Your task to perform on an android device: Go to privacy settings Image 0: 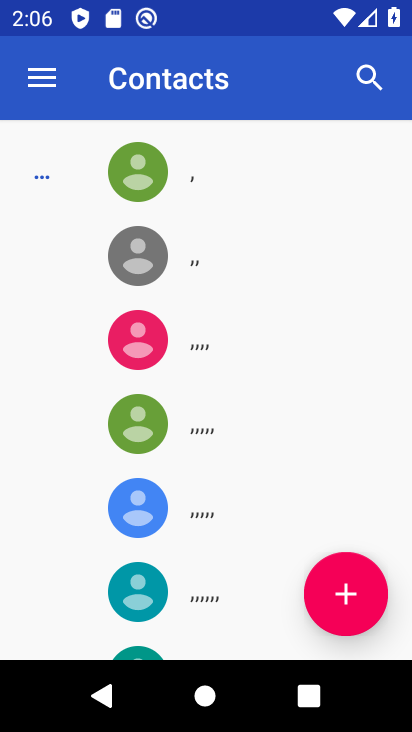
Step 0: press home button
Your task to perform on an android device: Go to privacy settings Image 1: 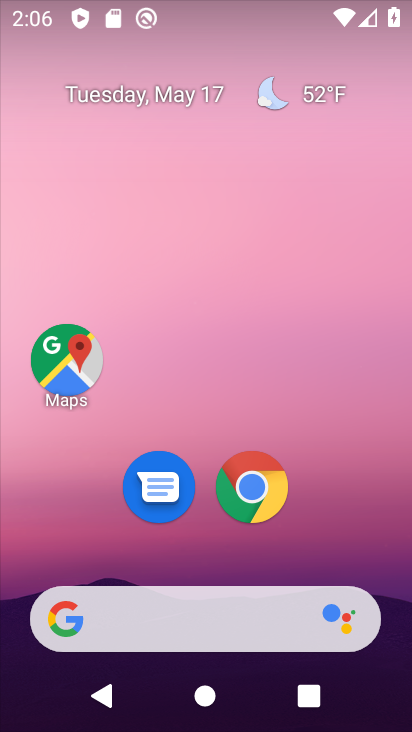
Step 1: drag from (387, 578) to (340, 202)
Your task to perform on an android device: Go to privacy settings Image 2: 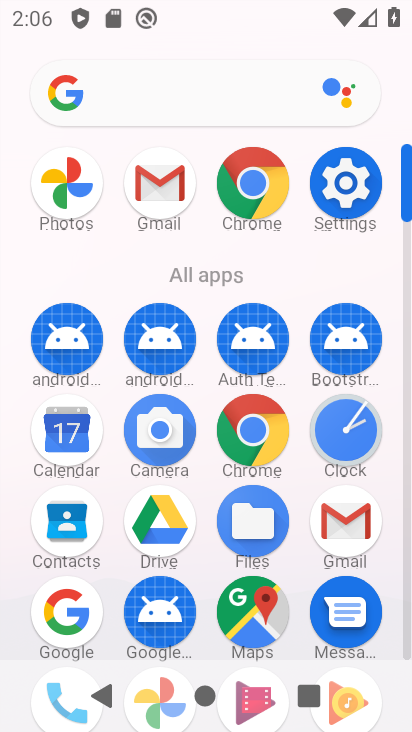
Step 2: click (337, 188)
Your task to perform on an android device: Go to privacy settings Image 3: 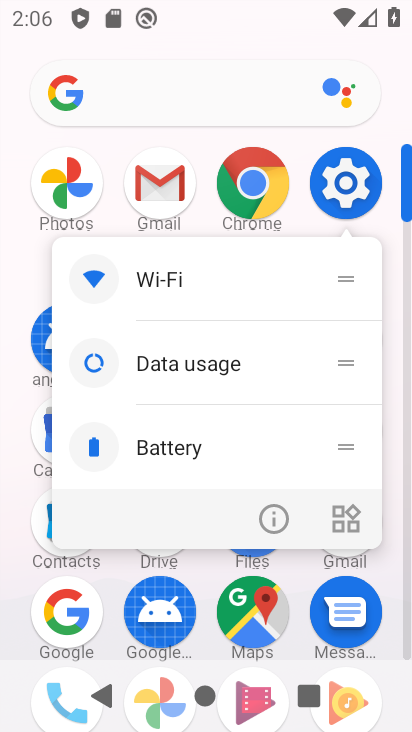
Step 3: click (250, 178)
Your task to perform on an android device: Go to privacy settings Image 4: 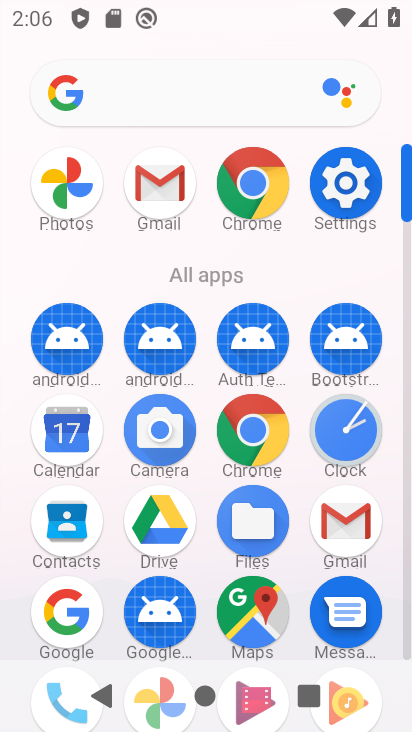
Step 4: click (249, 183)
Your task to perform on an android device: Go to privacy settings Image 5: 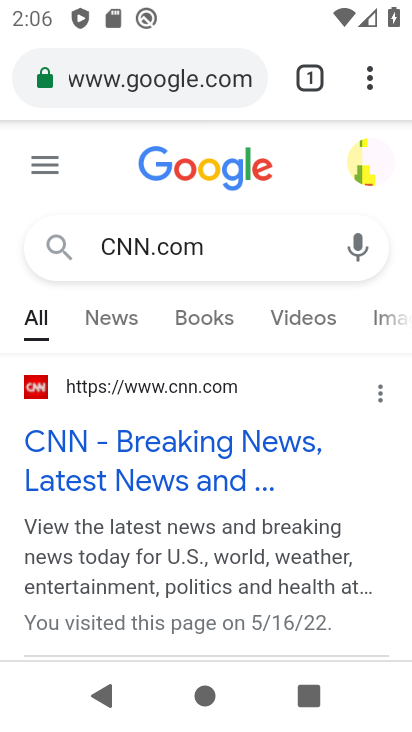
Step 5: drag from (236, 574) to (231, 366)
Your task to perform on an android device: Go to privacy settings Image 6: 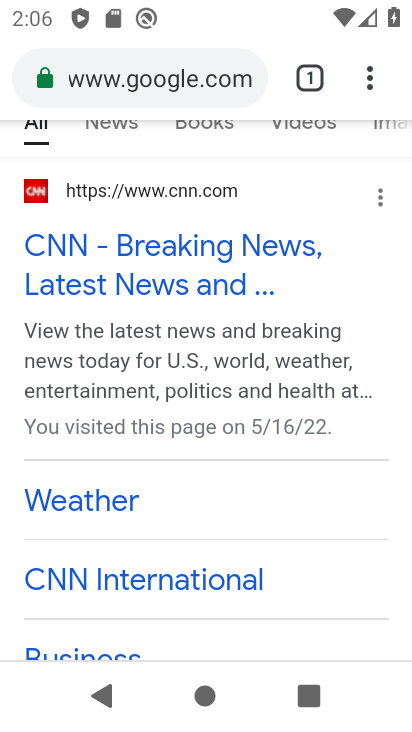
Step 6: click (370, 69)
Your task to perform on an android device: Go to privacy settings Image 7: 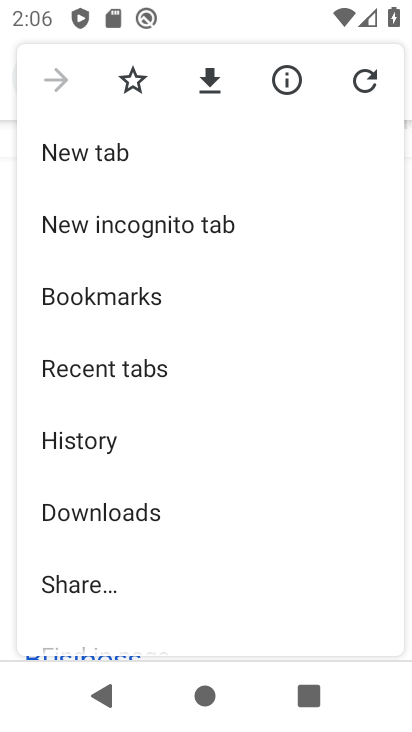
Step 7: drag from (249, 611) to (280, 379)
Your task to perform on an android device: Go to privacy settings Image 8: 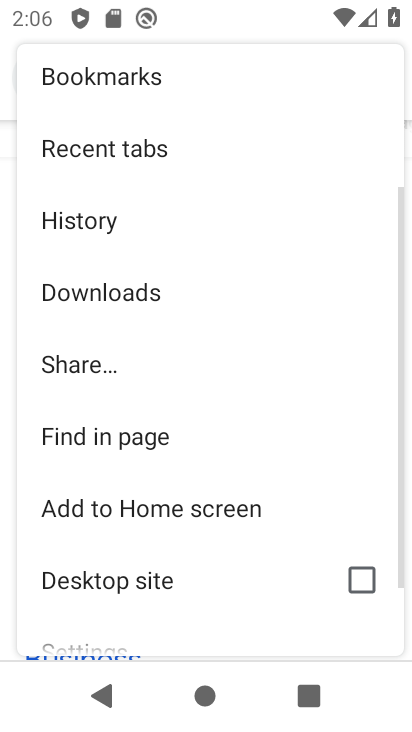
Step 8: drag from (264, 596) to (283, 376)
Your task to perform on an android device: Go to privacy settings Image 9: 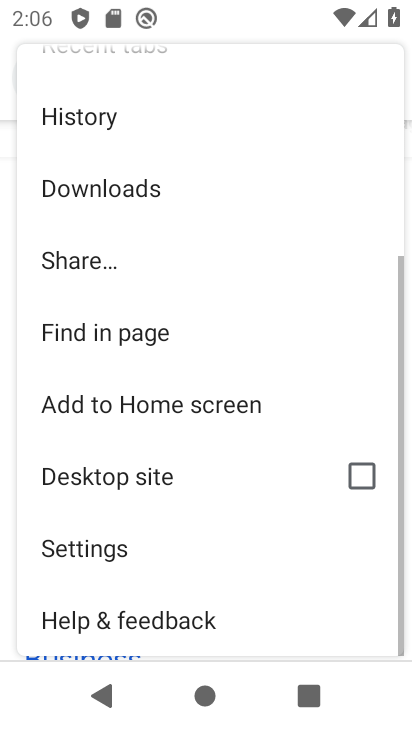
Step 9: click (94, 552)
Your task to perform on an android device: Go to privacy settings Image 10: 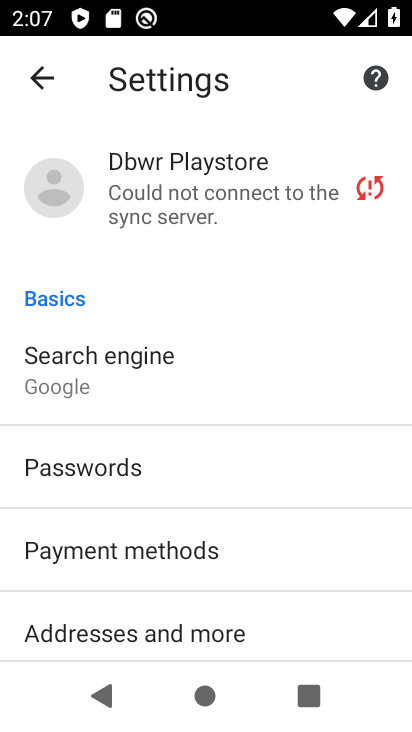
Step 10: drag from (313, 597) to (315, 345)
Your task to perform on an android device: Go to privacy settings Image 11: 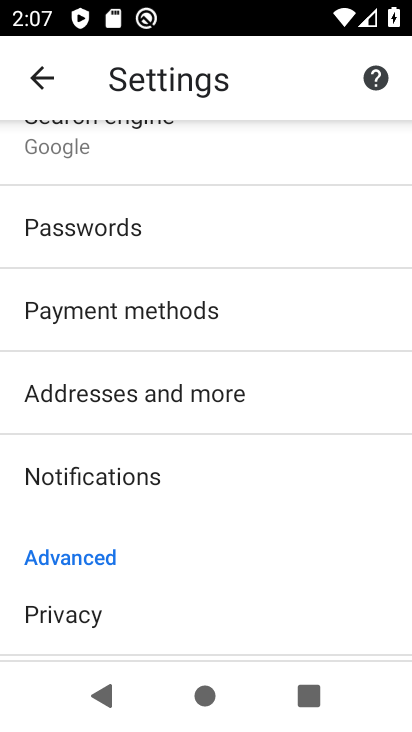
Step 11: click (68, 607)
Your task to perform on an android device: Go to privacy settings Image 12: 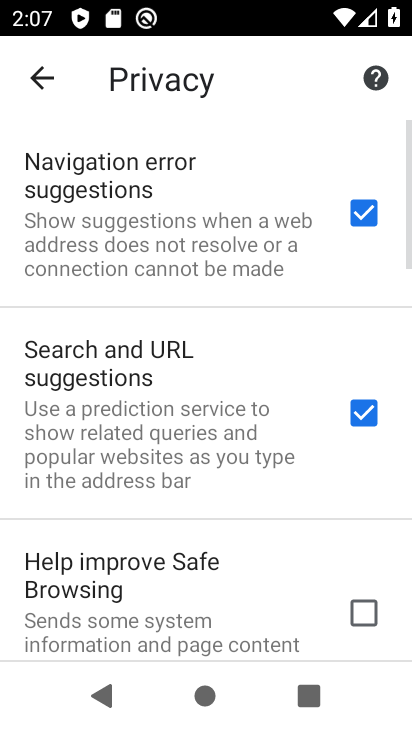
Step 12: task complete